Your task to perform on an android device: When is my next appointment? Image 0: 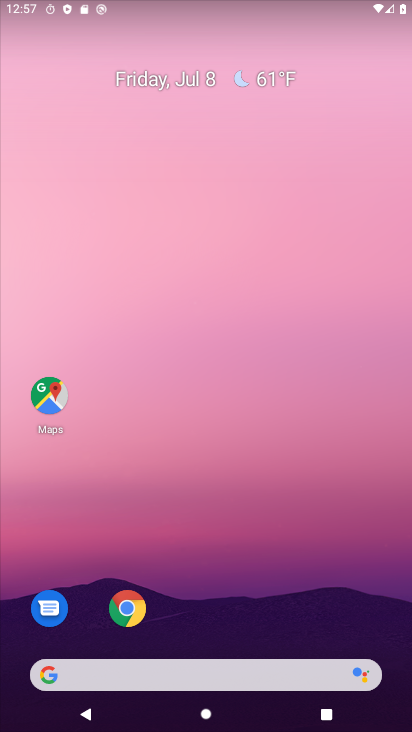
Step 0: drag from (210, 626) to (189, 166)
Your task to perform on an android device: When is my next appointment? Image 1: 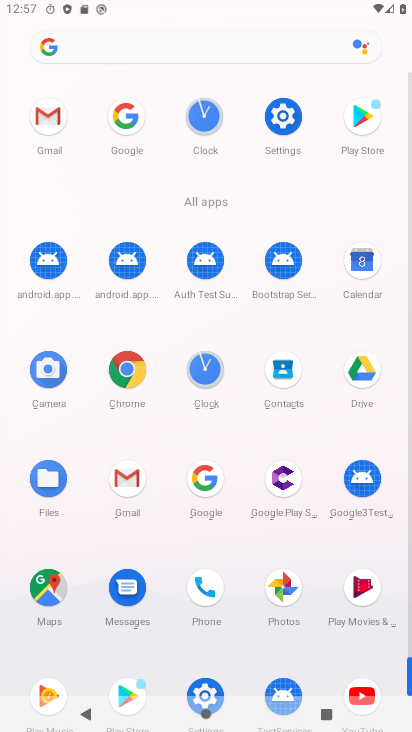
Step 1: click (364, 264)
Your task to perform on an android device: When is my next appointment? Image 2: 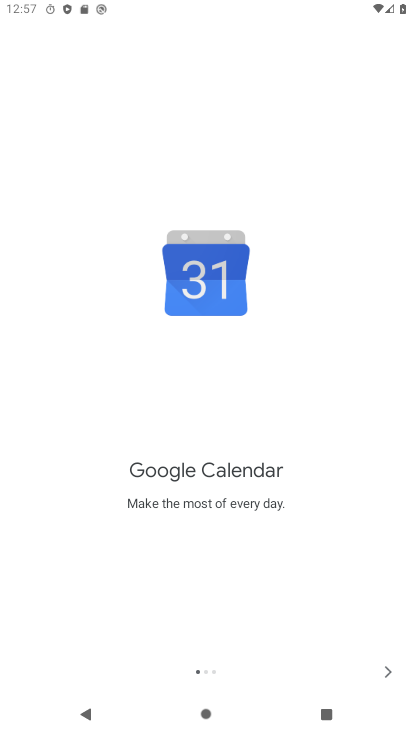
Step 2: click (377, 671)
Your task to perform on an android device: When is my next appointment? Image 3: 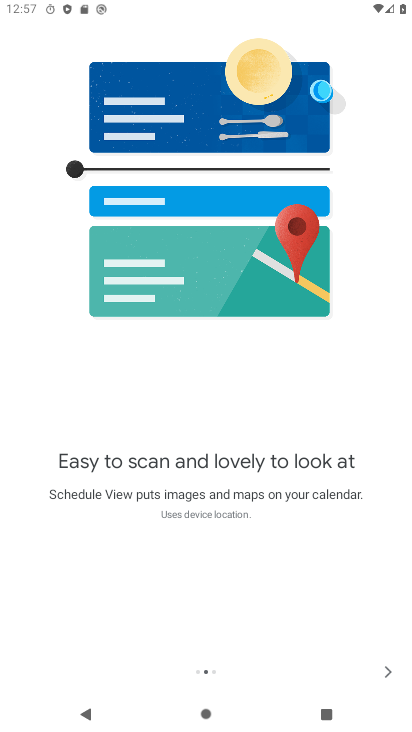
Step 3: click (377, 671)
Your task to perform on an android device: When is my next appointment? Image 4: 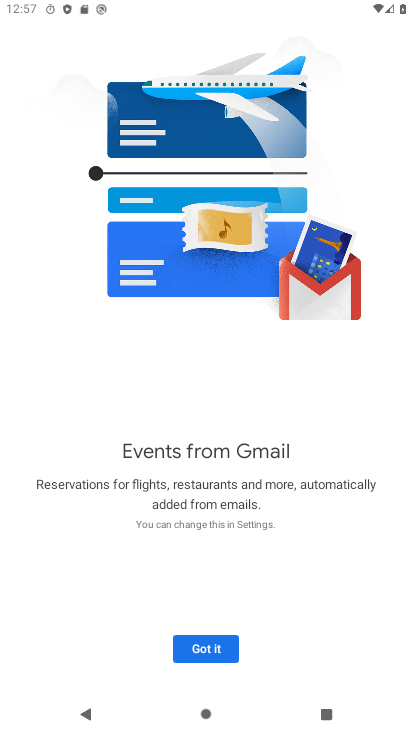
Step 4: click (226, 658)
Your task to perform on an android device: When is my next appointment? Image 5: 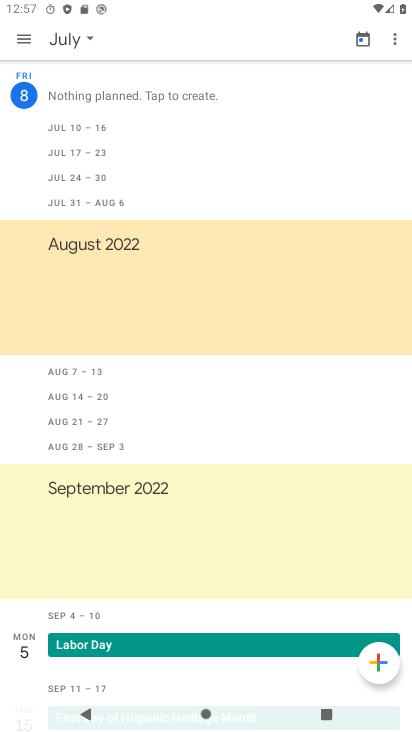
Step 5: click (18, 43)
Your task to perform on an android device: When is my next appointment? Image 6: 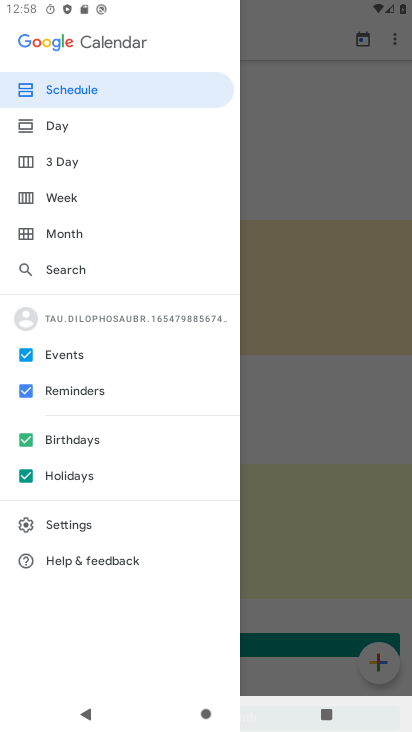
Step 6: click (73, 88)
Your task to perform on an android device: When is my next appointment? Image 7: 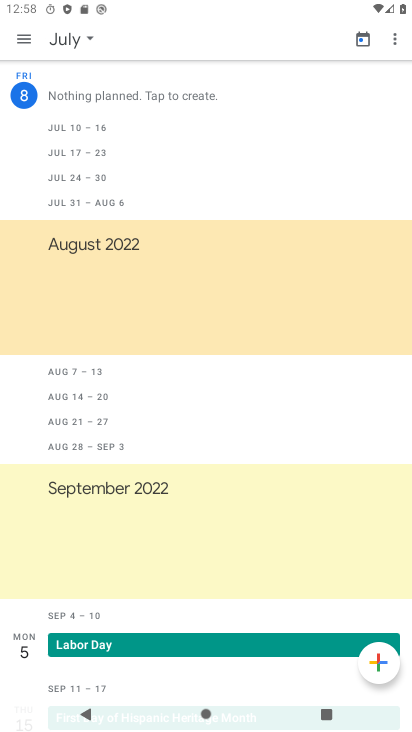
Step 7: click (79, 42)
Your task to perform on an android device: When is my next appointment? Image 8: 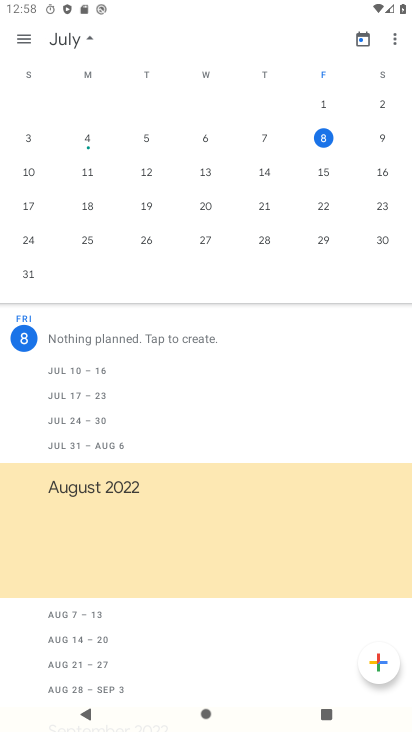
Step 8: click (380, 135)
Your task to perform on an android device: When is my next appointment? Image 9: 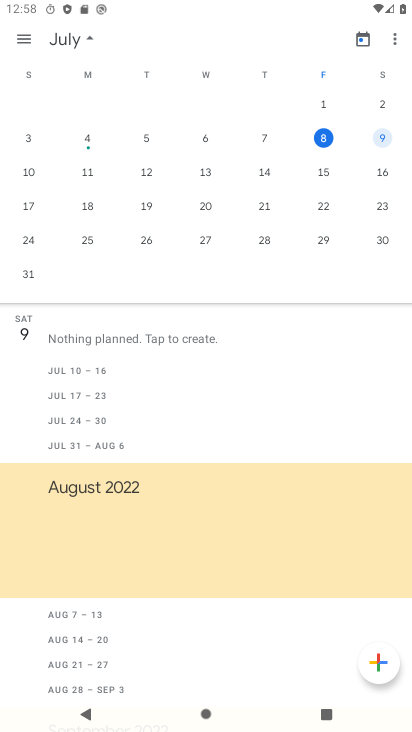
Step 9: click (26, 171)
Your task to perform on an android device: When is my next appointment? Image 10: 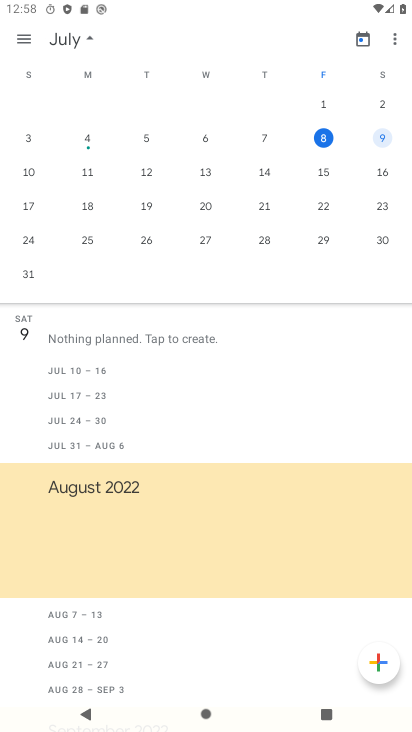
Step 10: click (27, 169)
Your task to perform on an android device: When is my next appointment? Image 11: 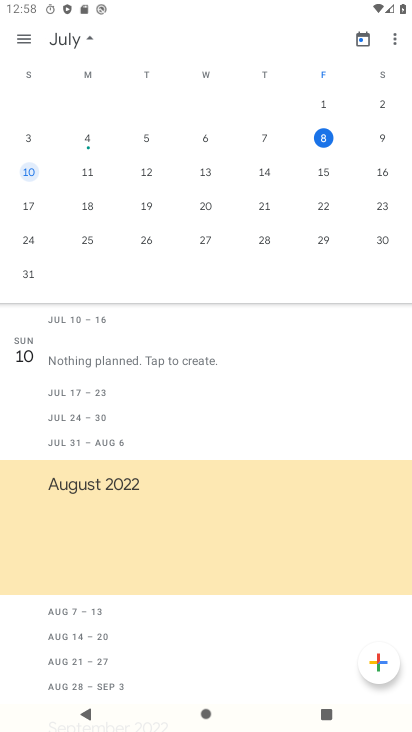
Step 11: task complete